Your task to perform on an android device: turn pop-ups on in chrome Image 0: 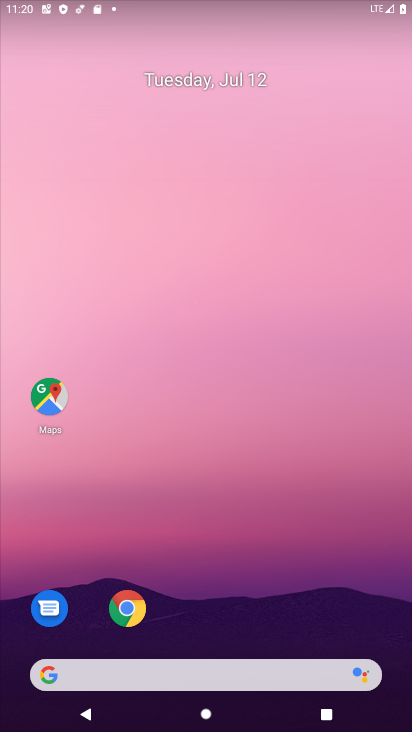
Step 0: click (137, 608)
Your task to perform on an android device: turn pop-ups on in chrome Image 1: 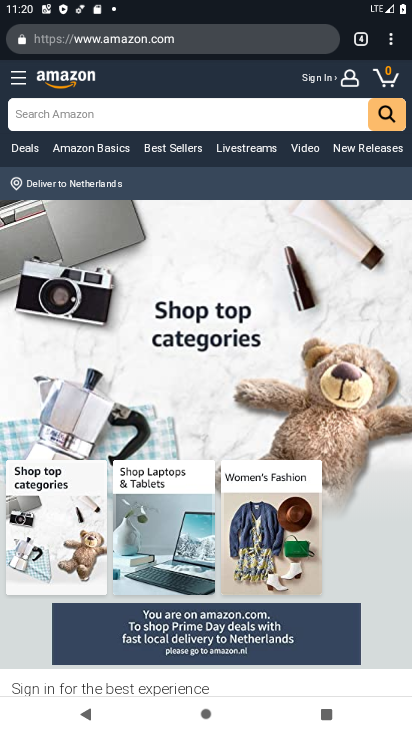
Step 1: click (398, 43)
Your task to perform on an android device: turn pop-ups on in chrome Image 2: 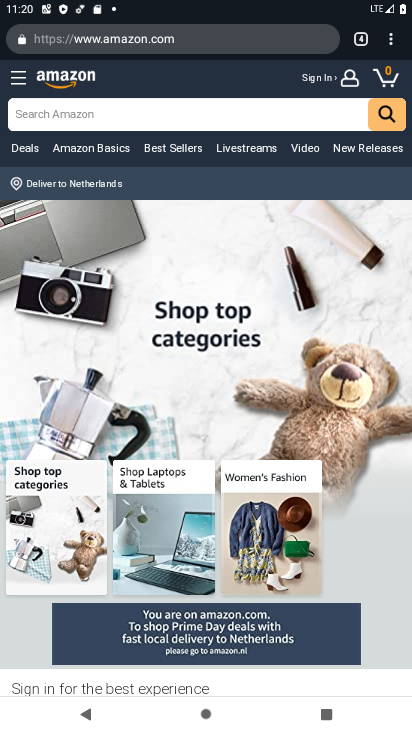
Step 2: click (380, 30)
Your task to perform on an android device: turn pop-ups on in chrome Image 3: 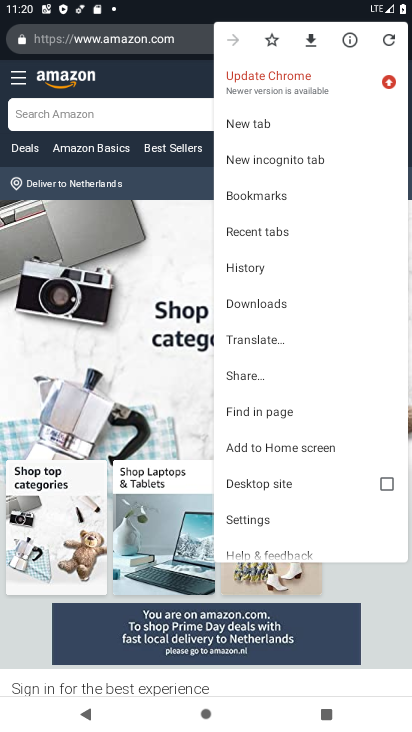
Step 3: click (260, 525)
Your task to perform on an android device: turn pop-ups on in chrome Image 4: 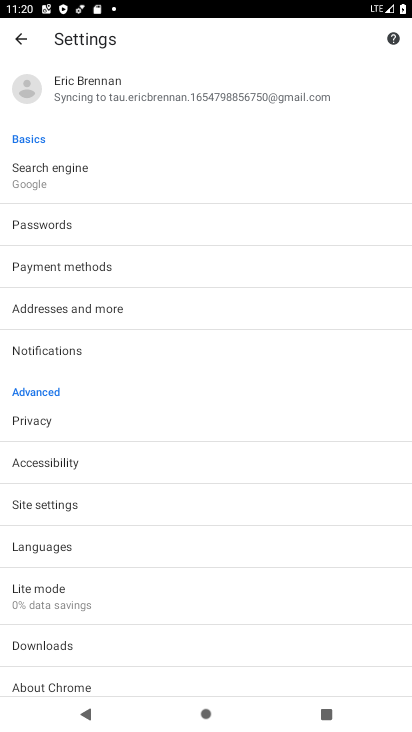
Step 4: drag from (129, 640) to (169, 180)
Your task to perform on an android device: turn pop-ups on in chrome Image 5: 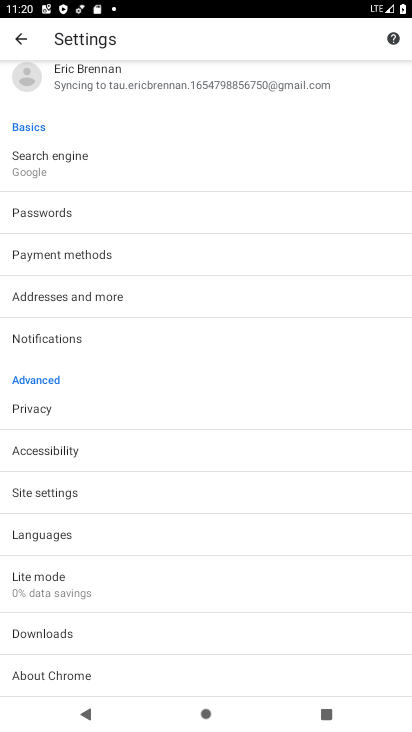
Step 5: click (76, 489)
Your task to perform on an android device: turn pop-ups on in chrome Image 6: 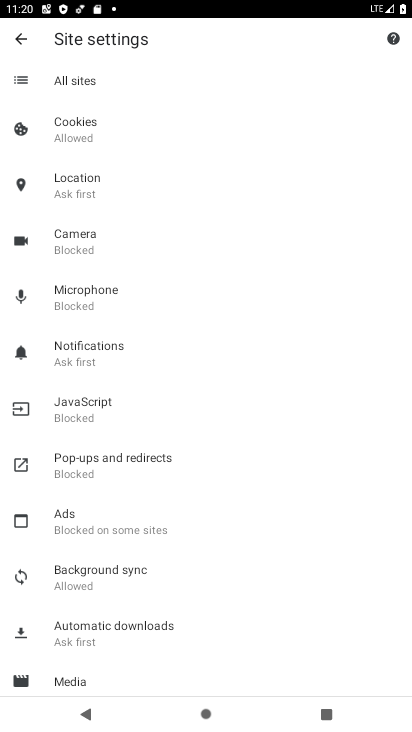
Step 6: click (116, 461)
Your task to perform on an android device: turn pop-ups on in chrome Image 7: 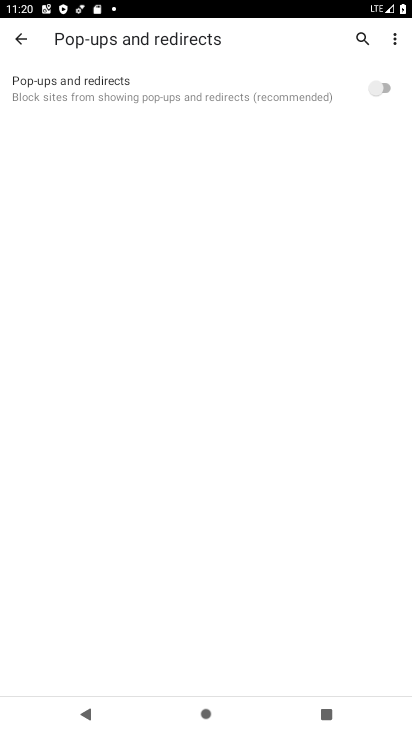
Step 7: click (385, 93)
Your task to perform on an android device: turn pop-ups on in chrome Image 8: 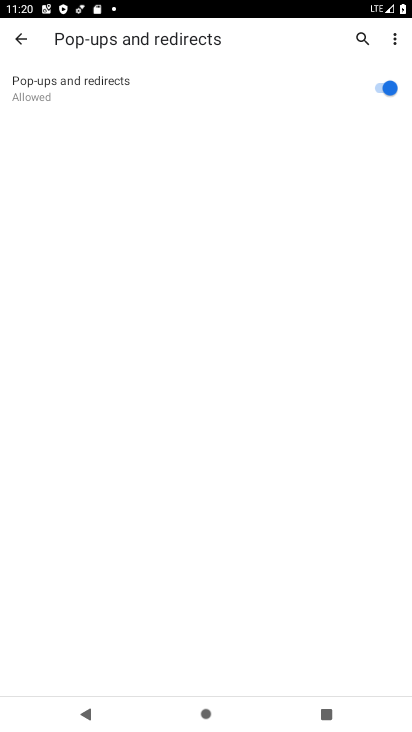
Step 8: task complete